Your task to perform on an android device: open wifi settings Image 0: 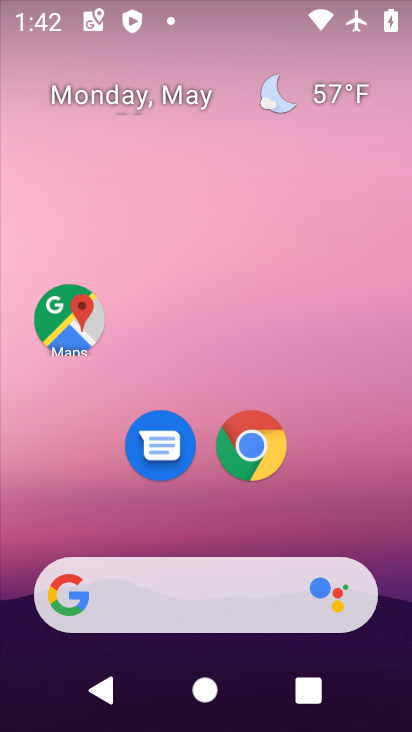
Step 0: drag from (212, 509) to (291, 75)
Your task to perform on an android device: open wifi settings Image 1: 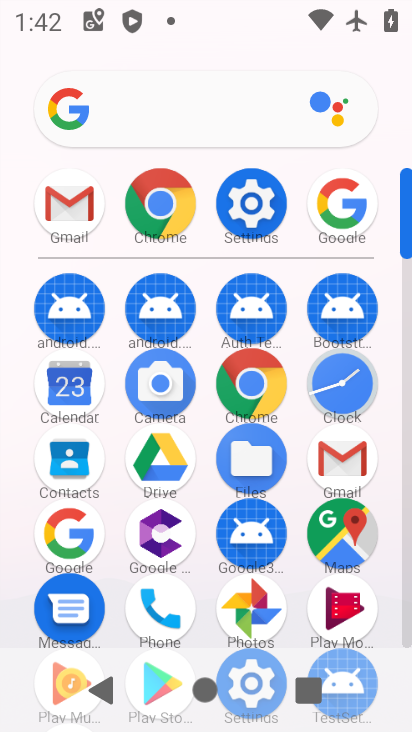
Step 1: click (249, 188)
Your task to perform on an android device: open wifi settings Image 2: 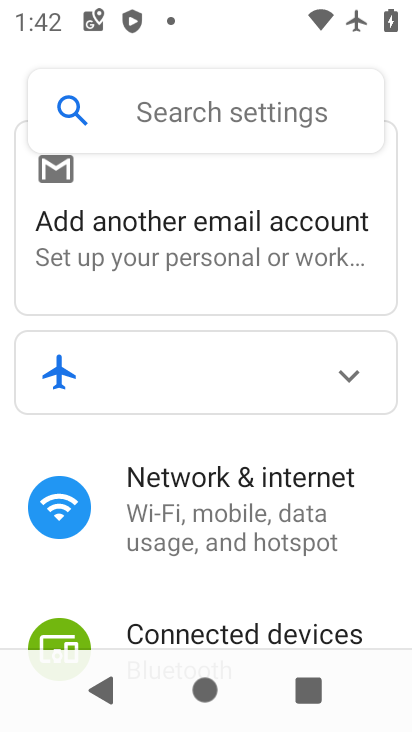
Step 2: click (221, 501)
Your task to perform on an android device: open wifi settings Image 3: 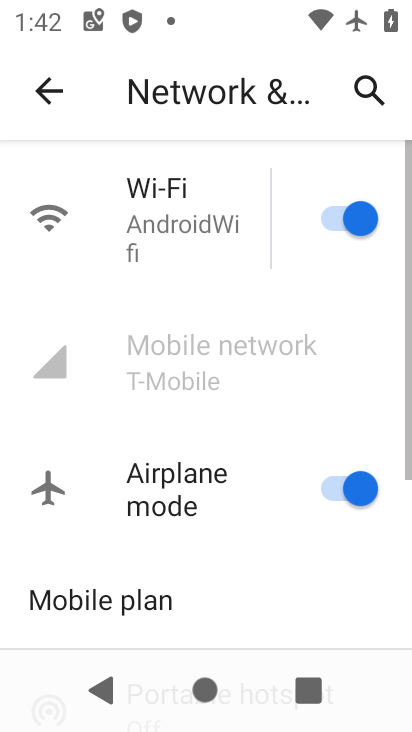
Step 3: click (215, 232)
Your task to perform on an android device: open wifi settings Image 4: 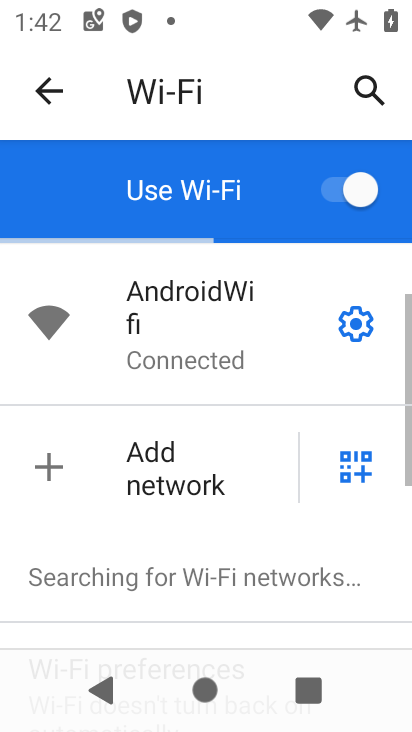
Step 4: click (358, 332)
Your task to perform on an android device: open wifi settings Image 5: 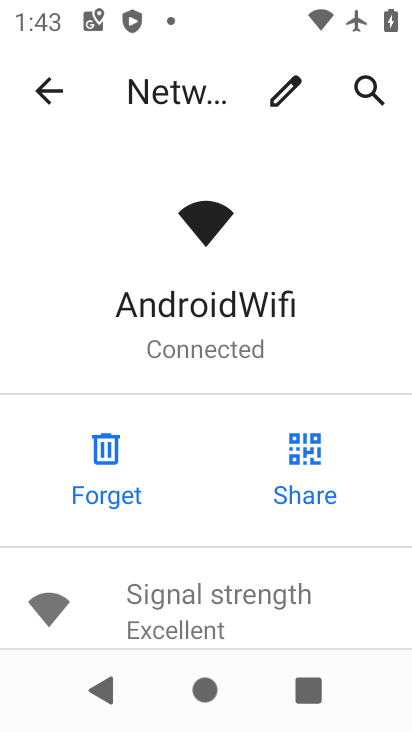
Step 5: task complete